Your task to perform on an android device: turn on sleep mode Image 0: 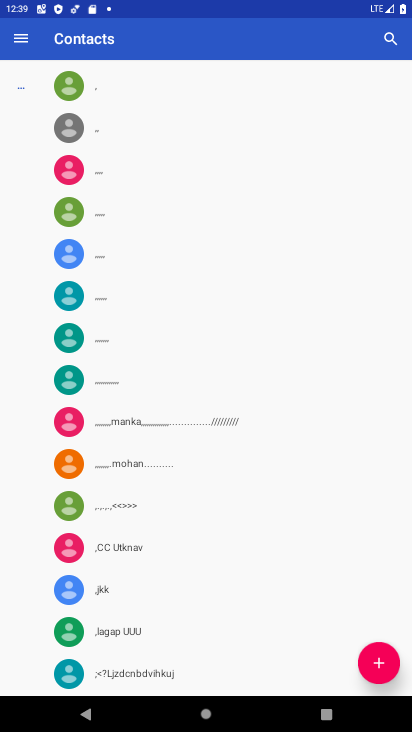
Step 0: press home button
Your task to perform on an android device: turn on sleep mode Image 1: 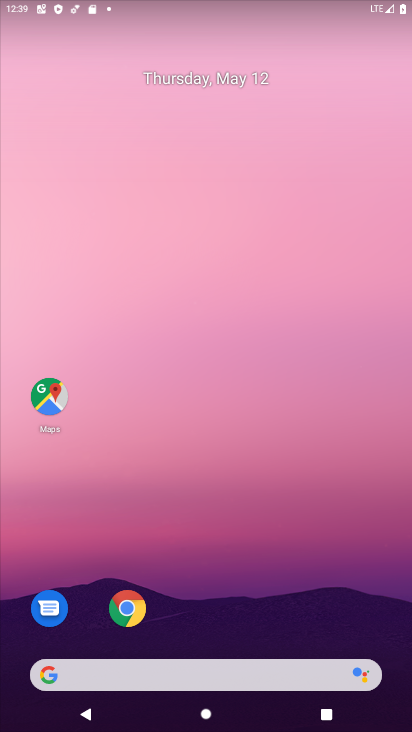
Step 1: drag from (300, 643) to (320, 1)
Your task to perform on an android device: turn on sleep mode Image 2: 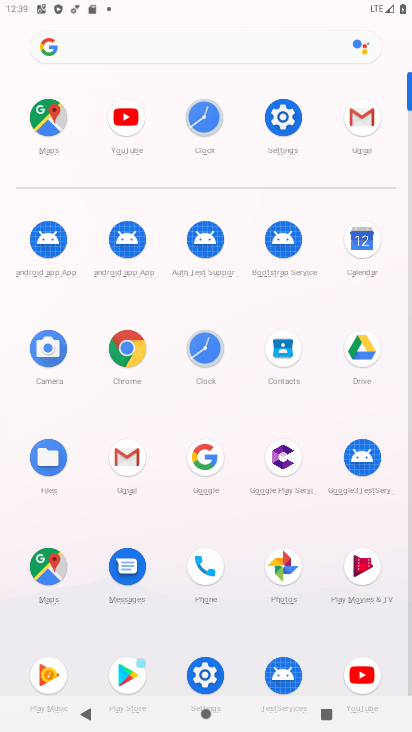
Step 2: click (284, 129)
Your task to perform on an android device: turn on sleep mode Image 3: 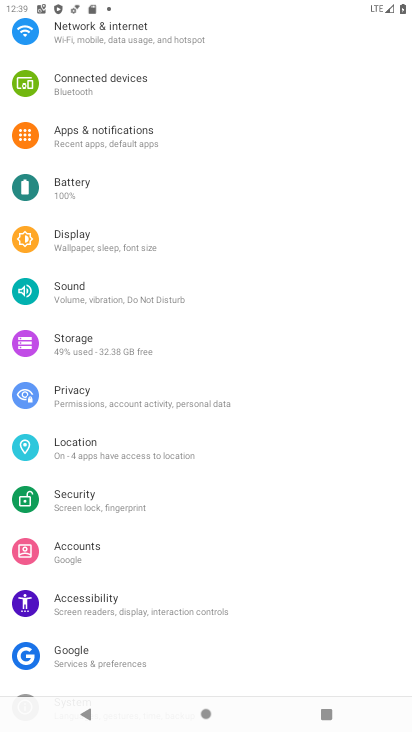
Step 3: click (73, 245)
Your task to perform on an android device: turn on sleep mode Image 4: 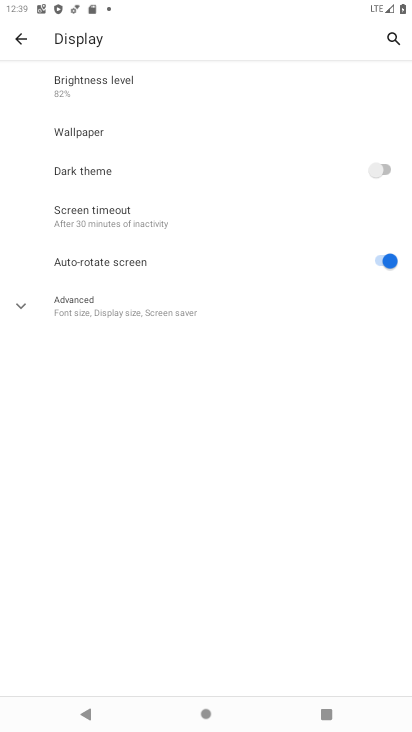
Step 4: click (17, 311)
Your task to perform on an android device: turn on sleep mode Image 5: 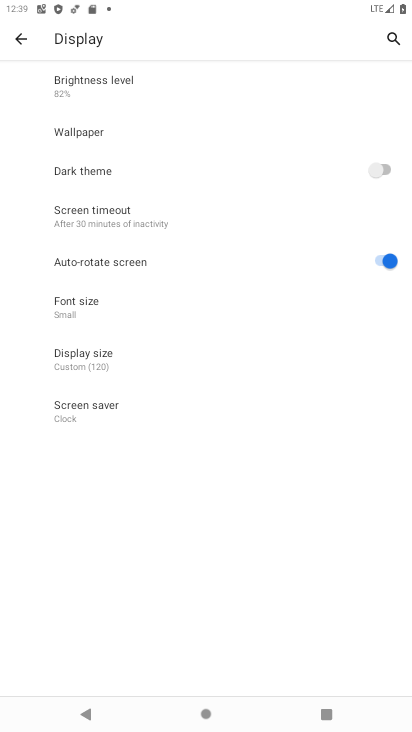
Step 5: task complete